Your task to perform on an android device: turn on showing notifications on the lock screen Image 0: 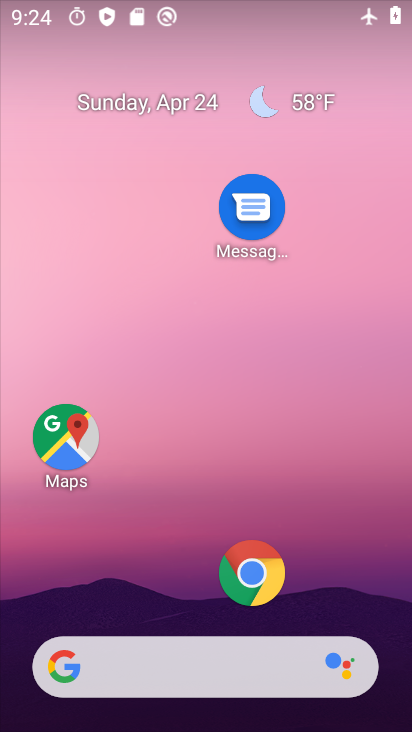
Step 0: click (309, 254)
Your task to perform on an android device: turn on showing notifications on the lock screen Image 1: 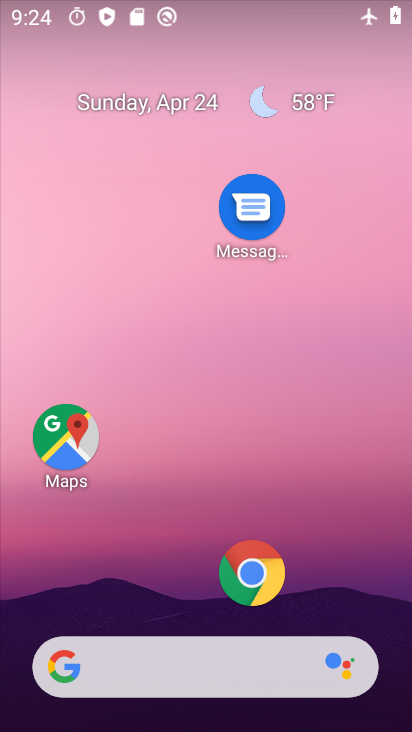
Step 1: drag from (162, 540) to (186, 45)
Your task to perform on an android device: turn on showing notifications on the lock screen Image 2: 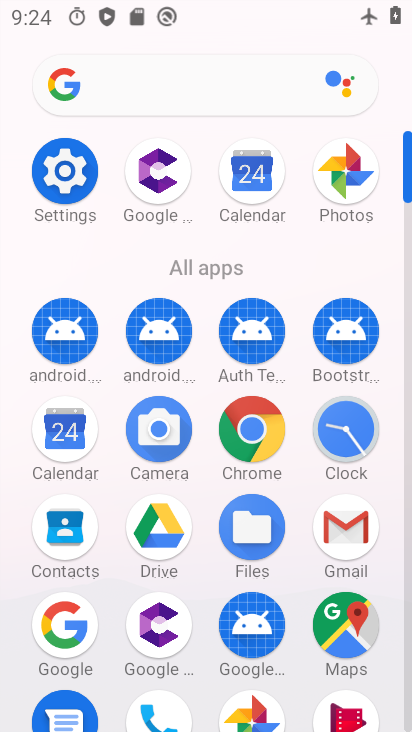
Step 2: click (72, 195)
Your task to perform on an android device: turn on showing notifications on the lock screen Image 3: 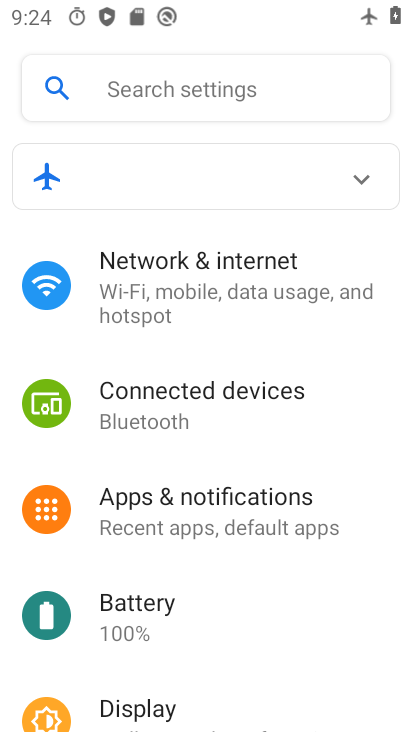
Step 3: click (213, 524)
Your task to perform on an android device: turn on showing notifications on the lock screen Image 4: 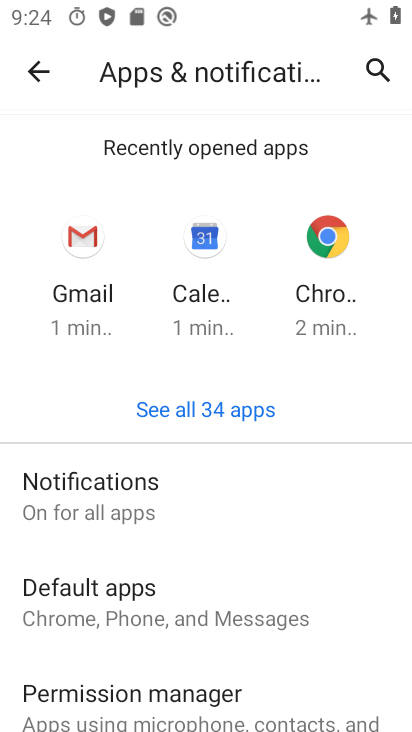
Step 4: click (144, 491)
Your task to perform on an android device: turn on showing notifications on the lock screen Image 5: 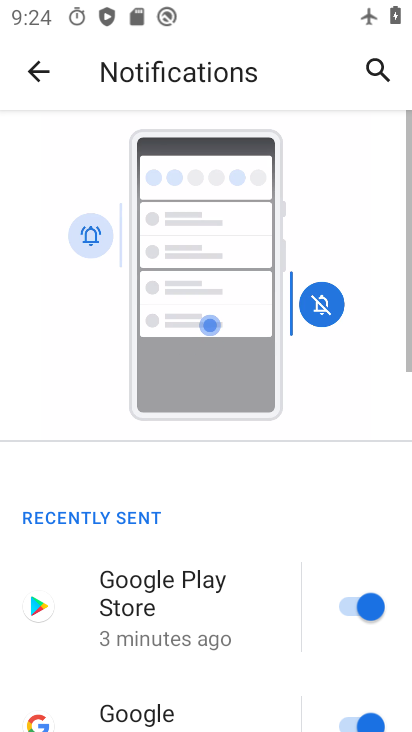
Step 5: drag from (162, 630) to (237, 135)
Your task to perform on an android device: turn on showing notifications on the lock screen Image 6: 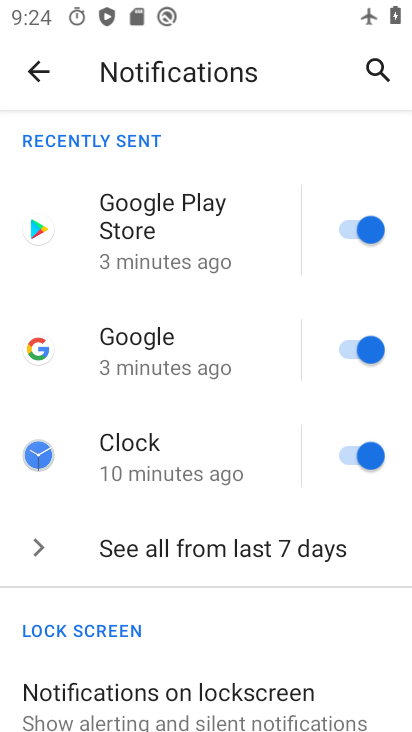
Step 6: drag from (170, 693) to (234, 397)
Your task to perform on an android device: turn on showing notifications on the lock screen Image 7: 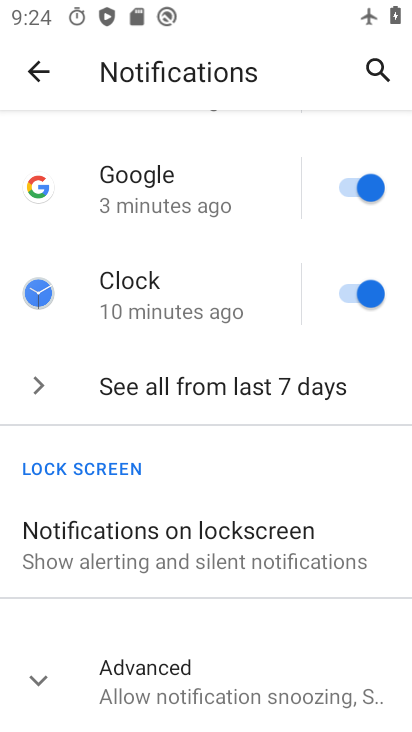
Step 7: click (196, 563)
Your task to perform on an android device: turn on showing notifications on the lock screen Image 8: 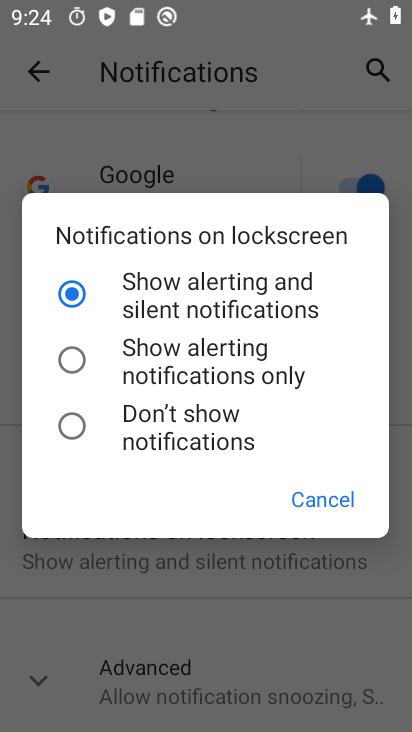
Step 8: task complete